Your task to perform on an android device: Open Yahoo.com Image 0: 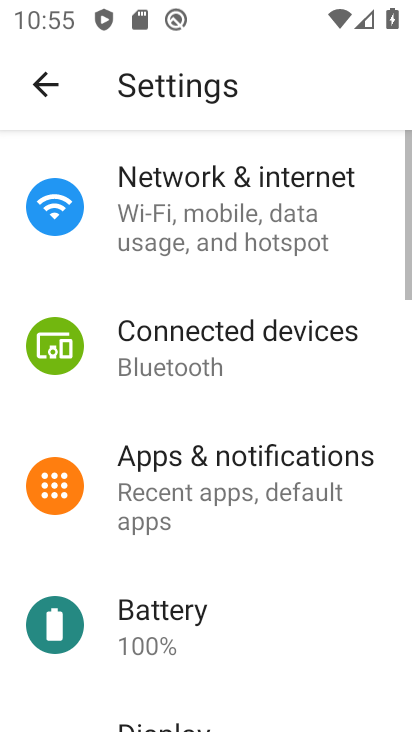
Step 0: press home button
Your task to perform on an android device: Open Yahoo.com Image 1: 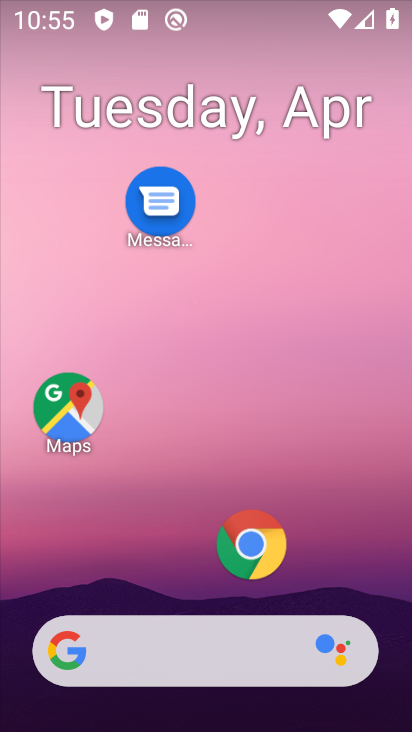
Step 1: click (252, 542)
Your task to perform on an android device: Open Yahoo.com Image 2: 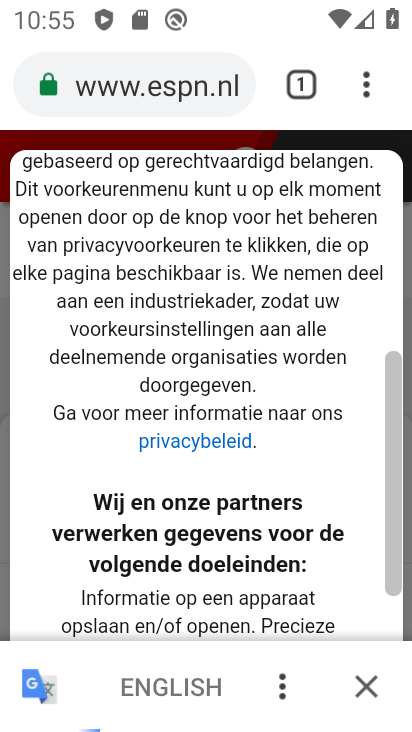
Step 2: click (147, 86)
Your task to perform on an android device: Open Yahoo.com Image 3: 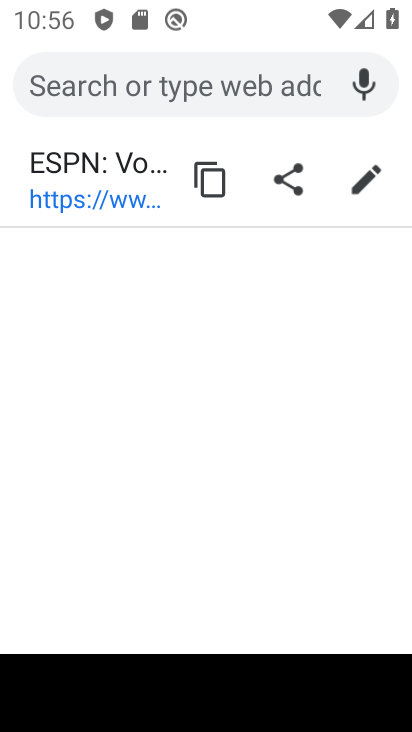
Step 3: type "yahoo.com"
Your task to perform on an android device: Open Yahoo.com Image 4: 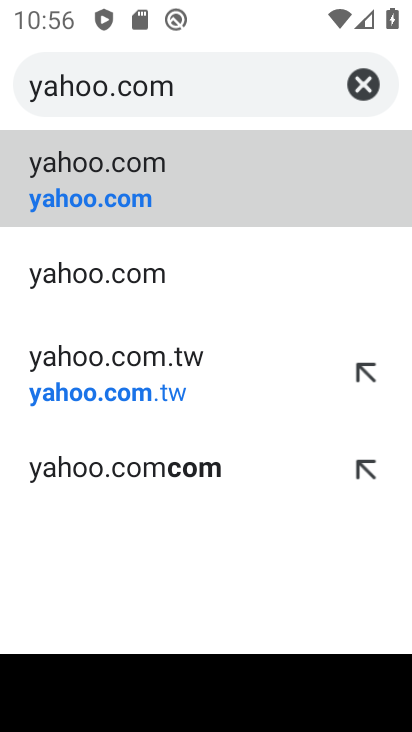
Step 4: click (151, 169)
Your task to perform on an android device: Open Yahoo.com Image 5: 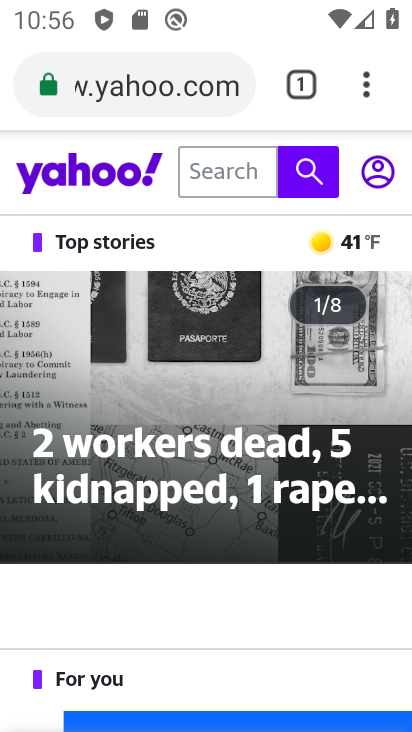
Step 5: task complete